Your task to perform on an android device: change the clock display to digital Image 0: 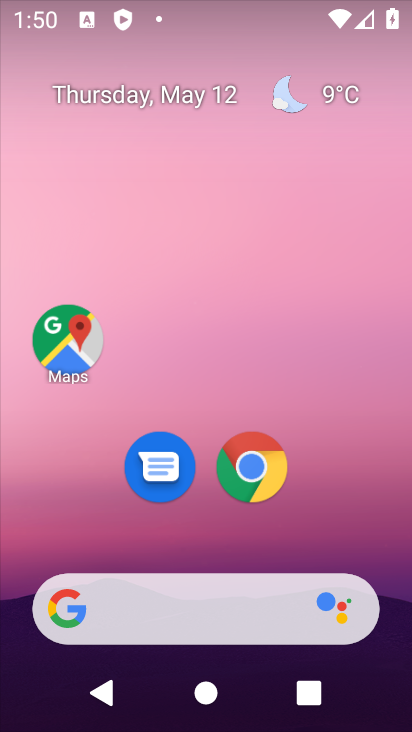
Step 0: drag from (331, 541) to (321, 164)
Your task to perform on an android device: change the clock display to digital Image 1: 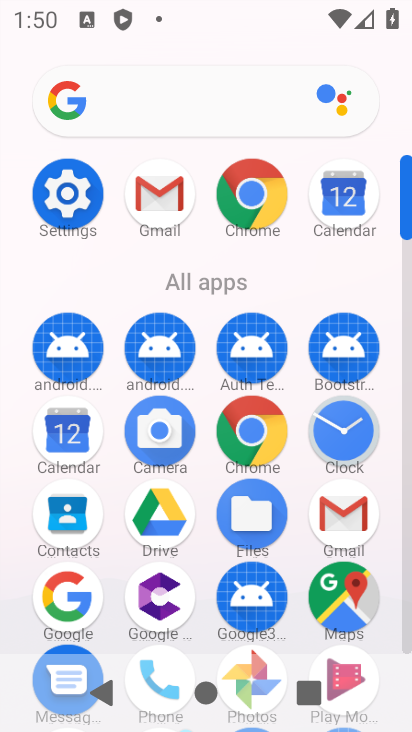
Step 1: click (356, 410)
Your task to perform on an android device: change the clock display to digital Image 2: 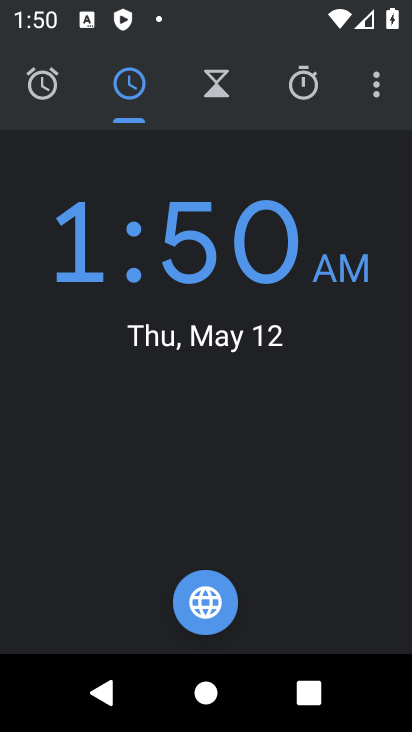
Step 2: click (363, 85)
Your task to perform on an android device: change the clock display to digital Image 3: 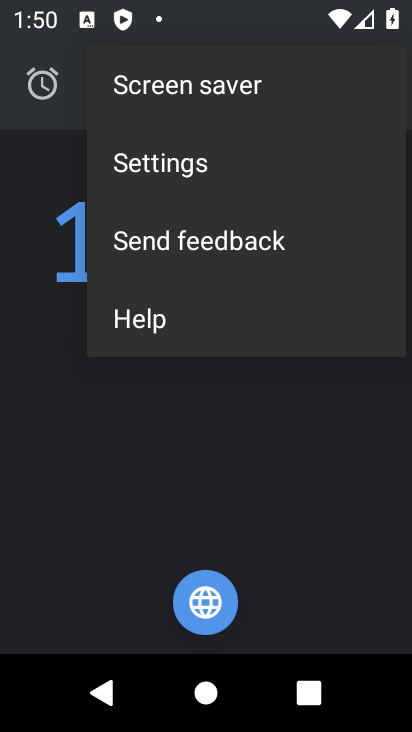
Step 3: click (154, 157)
Your task to perform on an android device: change the clock display to digital Image 4: 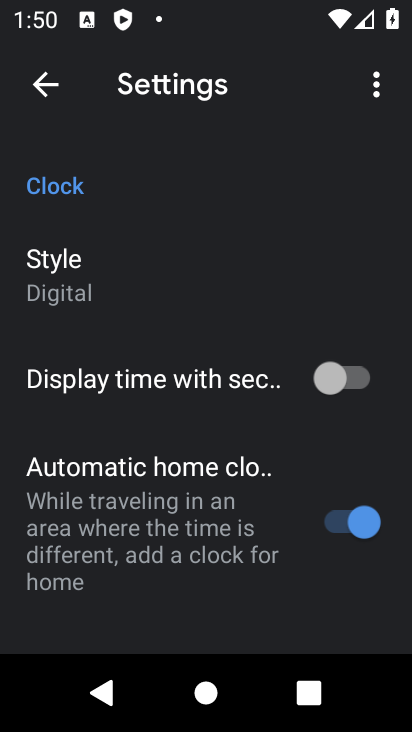
Step 4: drag from (197, 525) to (286, 242)
Your task to perform on an android device: change the clock display to digital Image 5: 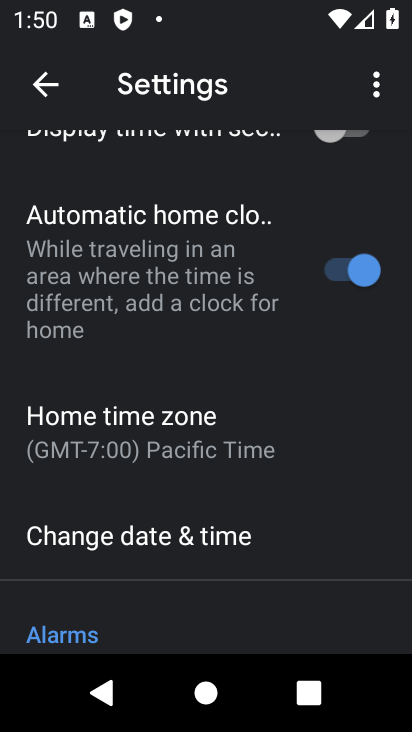
Step 5: drag from (192, 258) to (212, 570)
Your task to perform on an android device: change the clock display to digital Image 6: 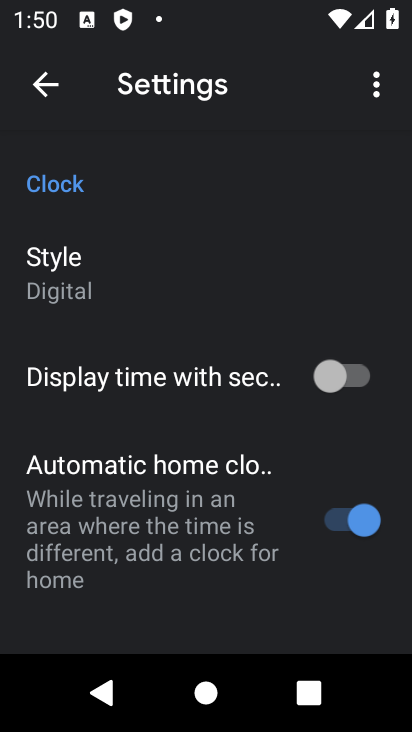
Step 6: click (88, 285)
Your task to perform on an android device: change the clock display to digital Image 7: 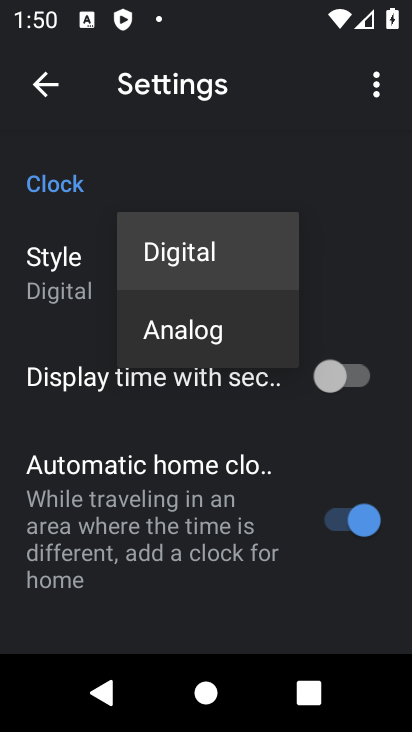
Step 7: click (185, 325)
Your task to perform on an android device: change the clock display to digital Image 8: 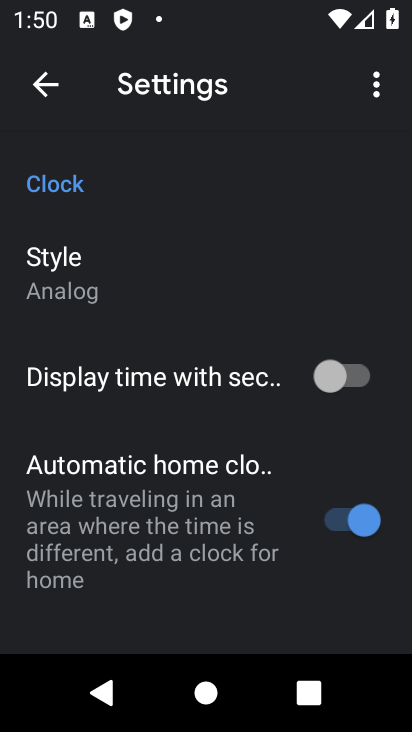
Step 8: task complete